Your task to perform on an android device: turn on javascript in the chrome app Image 0: 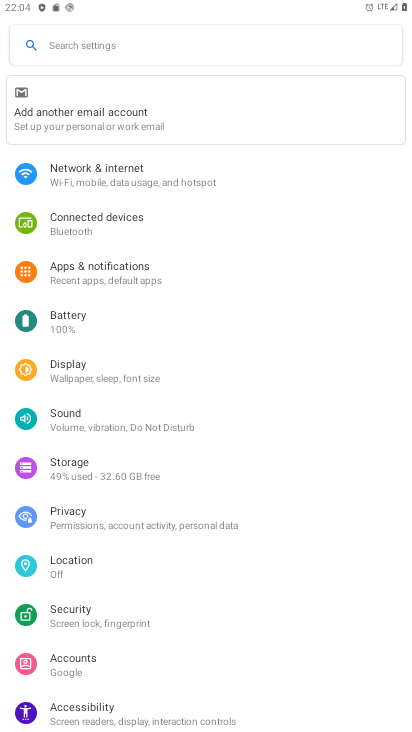
Step 0: press home button
Your task to perform on an android device: turn on javascript in the chrome app Image 1: 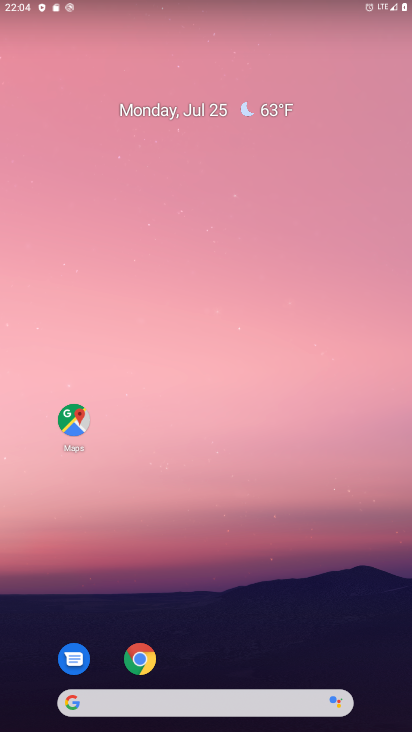
Step 1: drag from (232, 698) to (248, 246)
Your task to perform on an android device: turn on javascript in the chrome app Image 2: 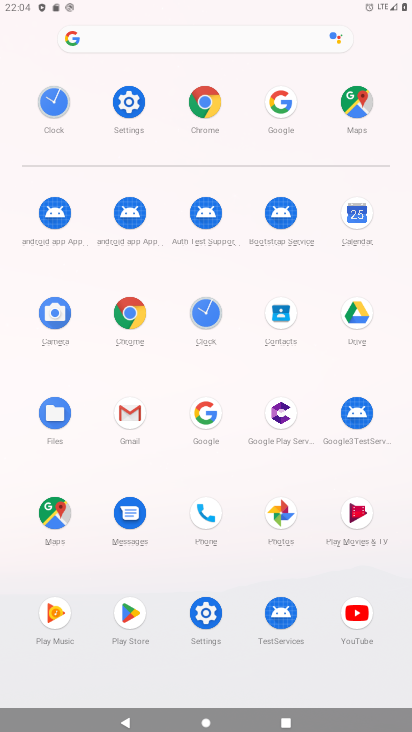
Step 2: click (130, 316)
Your task to perform on an android device: turn on javascript in the chrome app Image 3: 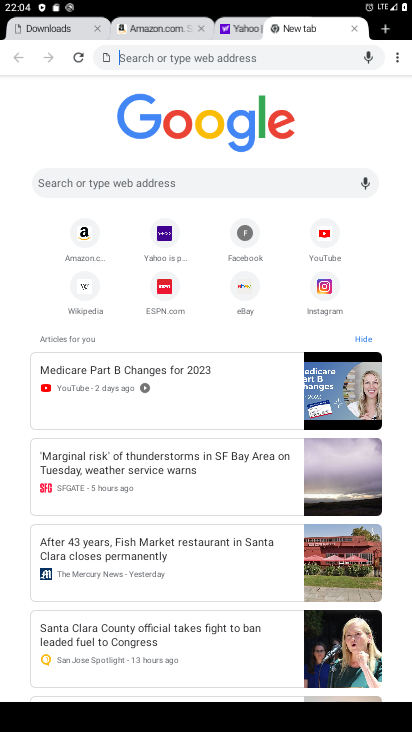
Step 3: click (394, 62)
Your task to perform on an android device: turn on javascript in the chrome app Image 4: 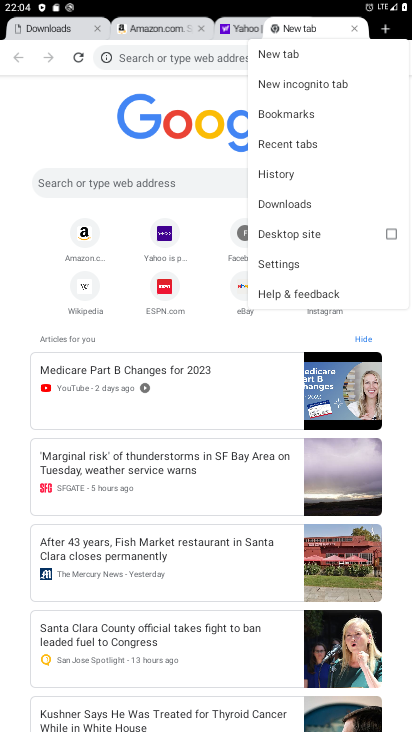
Step 4: click (279, 261)
Your task to perform on an android device: turn on javascript in the chrome app Image 5: 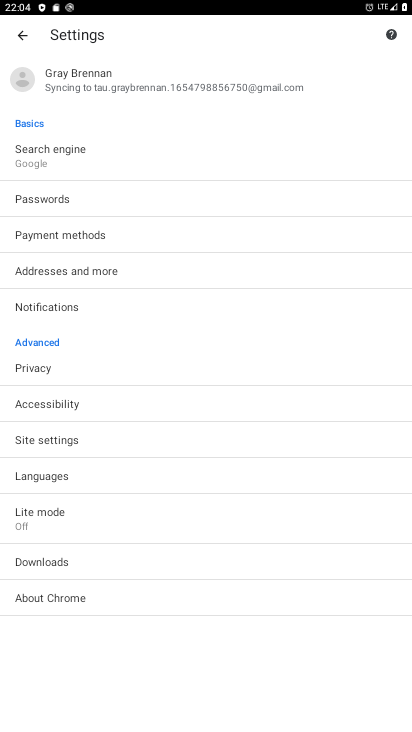
Step 5: click (51, 438)
Your task to perform on an android device: turn on javascript in the chrome app Image 6: 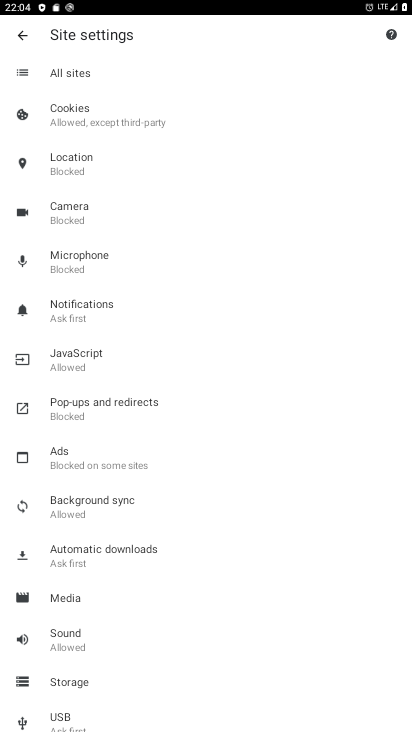
Step 6: click (72, 358)
Your task to perform on an android device: turn on javascript in the chrome app Image 7: 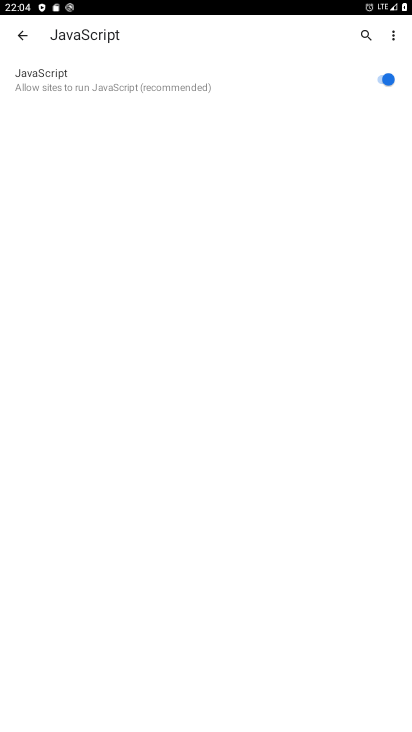
Step 7: task complete